Your task to perform on an android device: see tabs open on other devices in the chrome app Image 0: 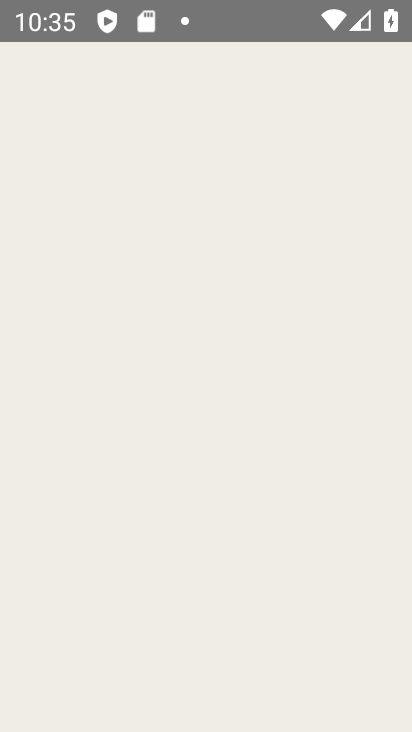
Step 0: click (111, 12)
Your task to perform on an android device: see tabs open on other devices in the chrome app Image 1: 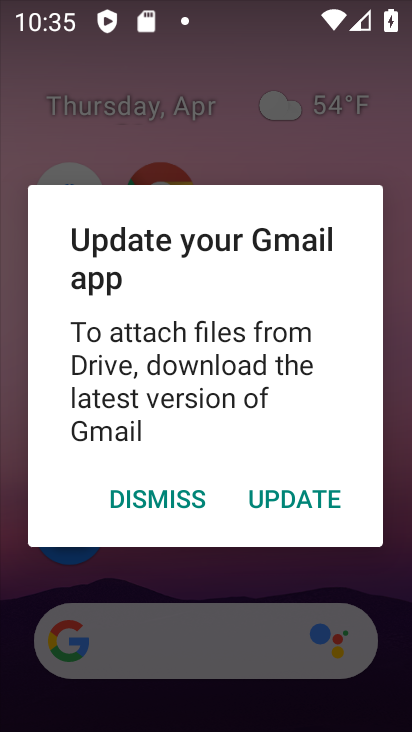
Step 1: press home button
Your task to perform on an android device: see tabs open on other devices in the chrome app Image 2: 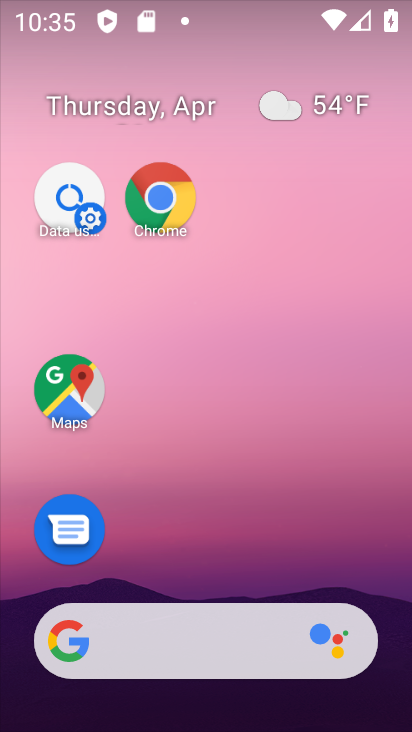
Step 2: drag from (240, 560) to (402, 417)
Your task to perform on an android device: see tabs open on other devices in the chrome app Image 3: 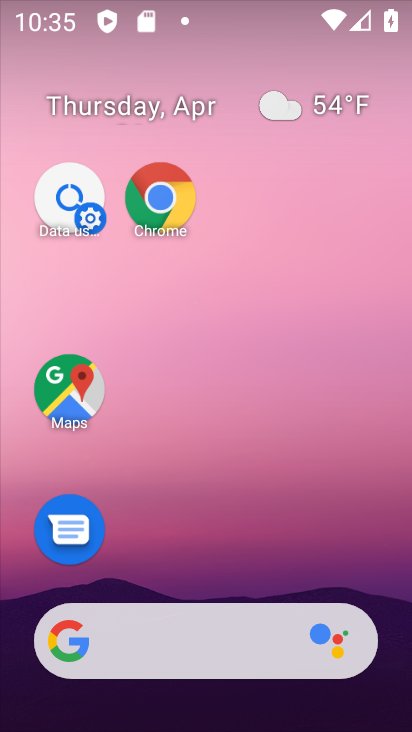
Step 3: click (159, 214)
Your task to perform on an android device: see tabs open on other devices in the chrome app Image 4: 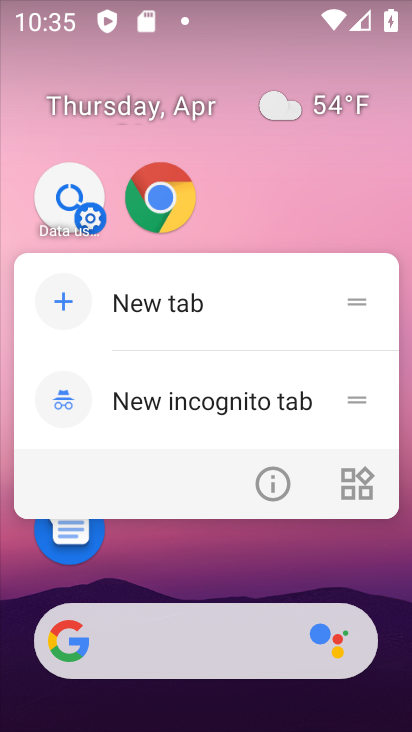
Step 4: click (167, 197)
Your task to perform on an android device: see tabs open on other devices in the chrome app Image 5: 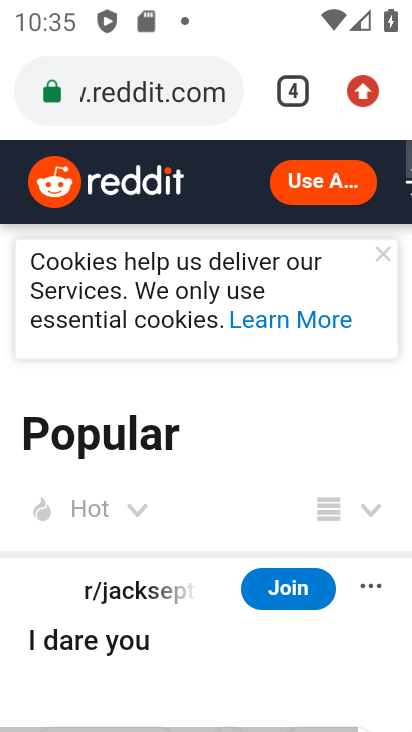
Step 5: click (357, 98)
Your task to perform on an android device: see tabs open on other devices in the chrome app Image 6: 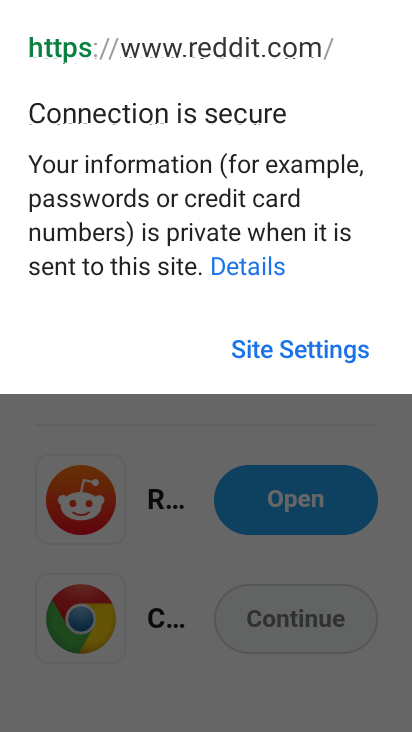
Step 6: click (309, 448)
Your task to perform on an android device: see tabs open on other devices in the chrome app Image 7: 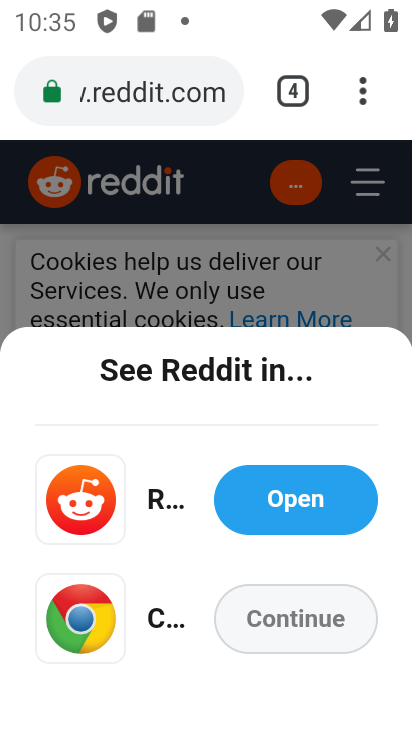
Step 7: click (314, 616)
Your task to perform on an android device: see tabs open on other devices in the chrome app Image 8: 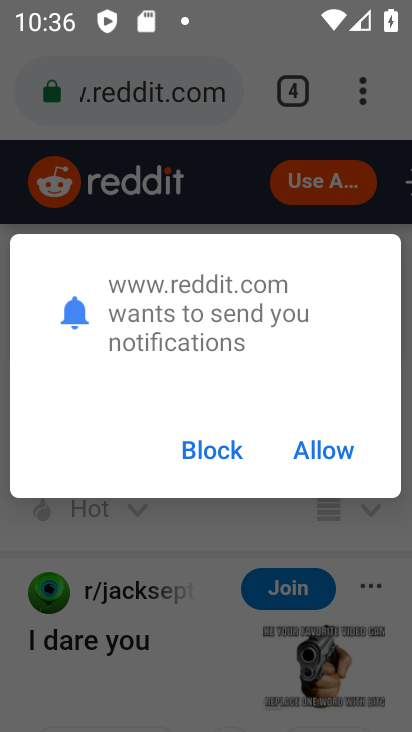
Step 8: click (312, 453)
Your task to perform on an android device: see tabs open on other devices in the chrome app Image 9: 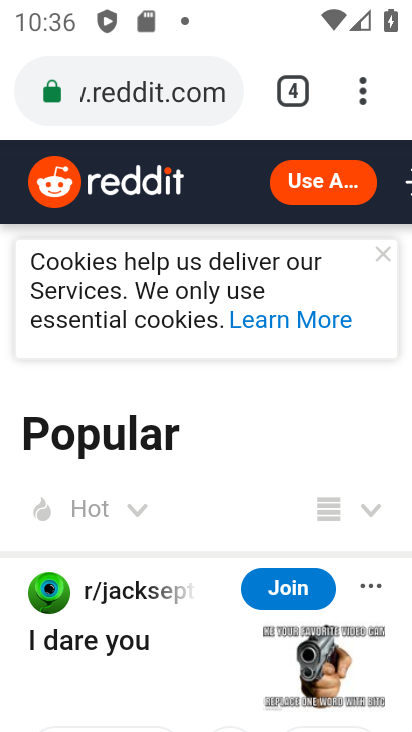
Step 9: click (365, 90)
Your task to perform on an android device: see tabs open on other devices in the chrome app Image 10: 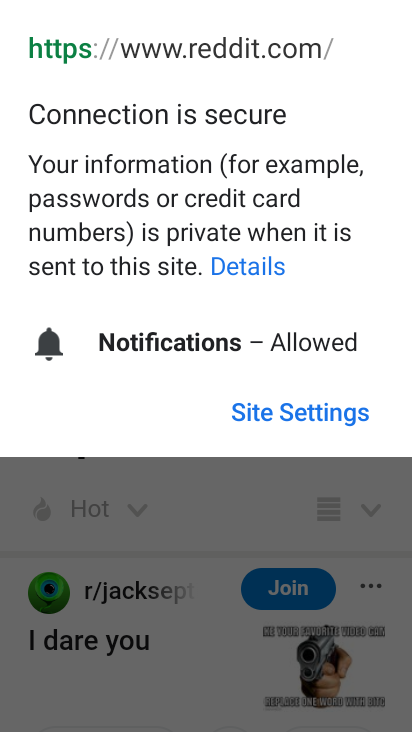
Step 10: click (225, 542)
Your task to perform on an android device: see tabs open on other devices in the chrome app Image 11: 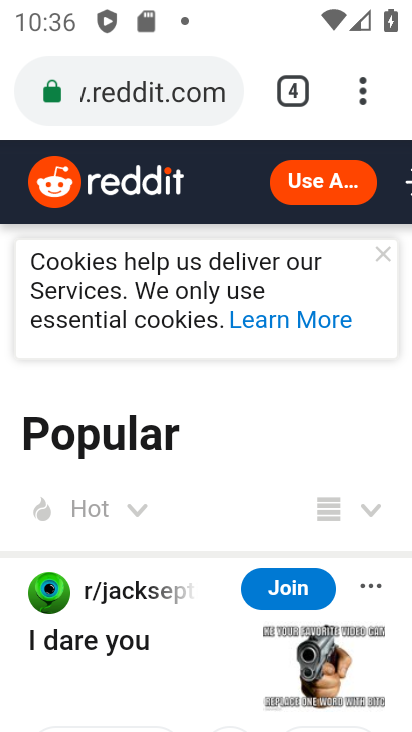
Step 11: click (290, 88)
Your task to perform on an android device: see tabs open on other devices in the chrome app Image 12: 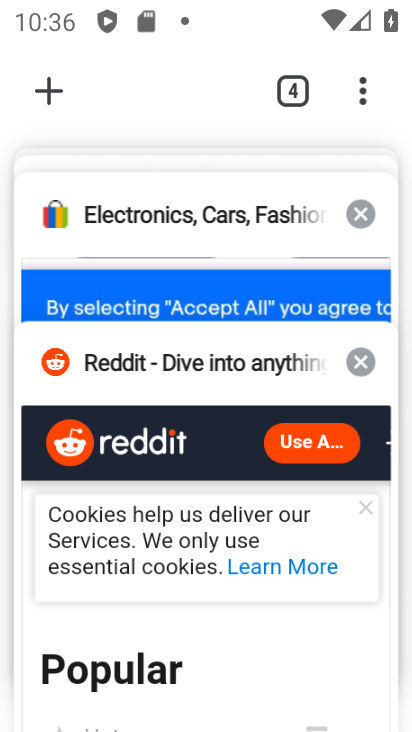
Step 12: task complete